Your task to perform on an android device: Check the weather Image 0: 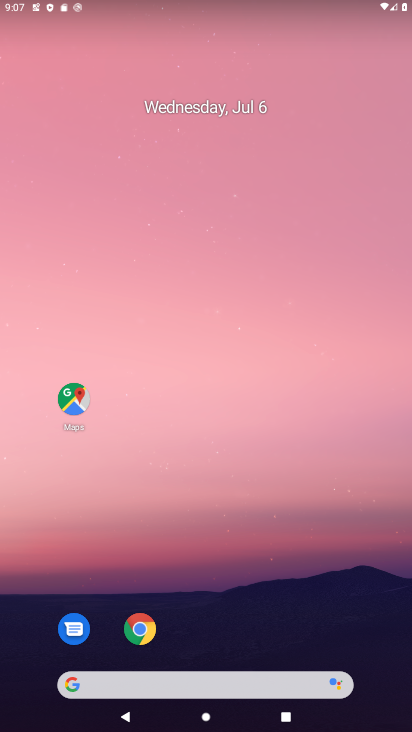
Step 0: drag from (235, 626) to (243, 104)
Your task to perform on an android device: Check the weather Image 1: 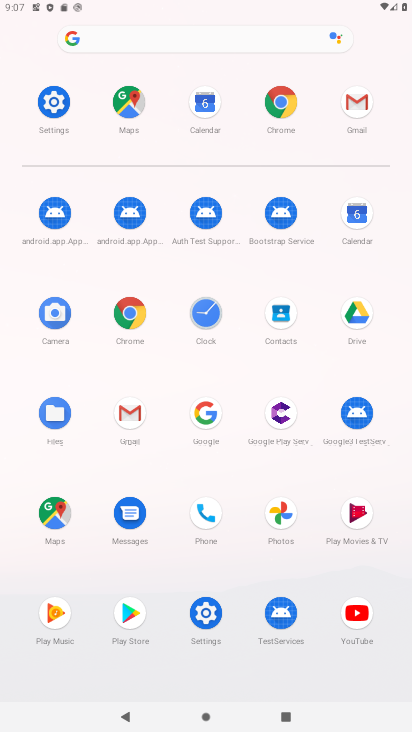
Step 1: click (205, 416)
Your task to perform on an android device: Check the weather Image 2: 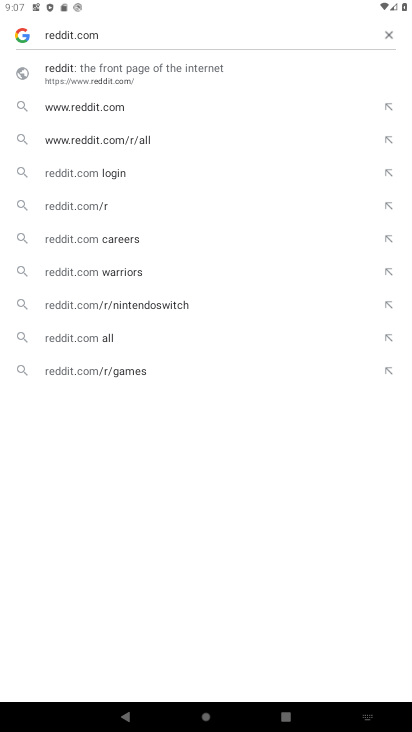
Step 2: click (181, 34)
Your task to perform on an android device: Check the weather Image 3: 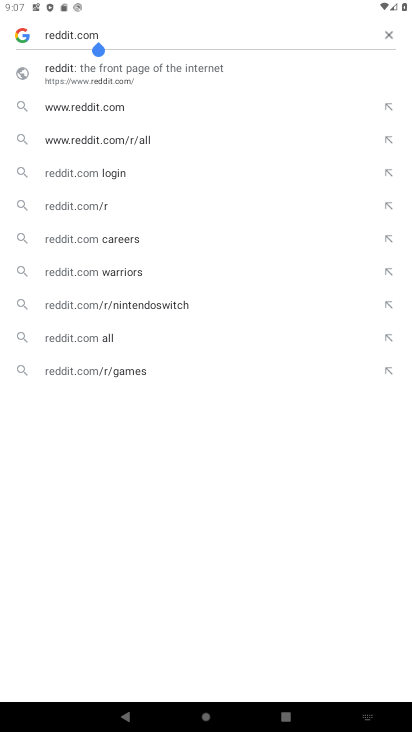
Step 3: click (389, 33)
Your task to perform on an android device: Check the weather Image 4: 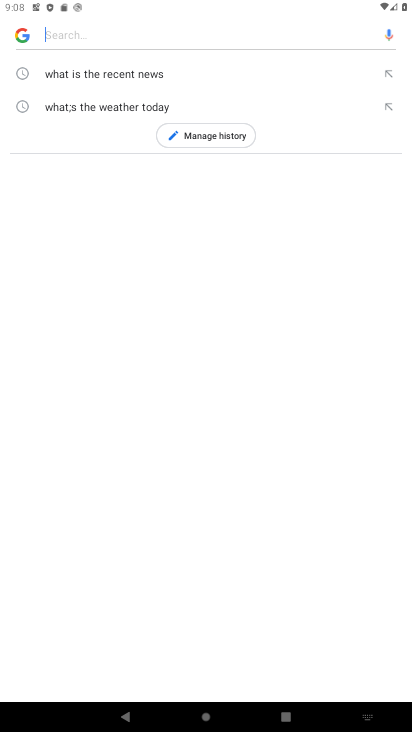
Step 4: type "weather"
Your task to perform on an android device: Check the weather Image 5: 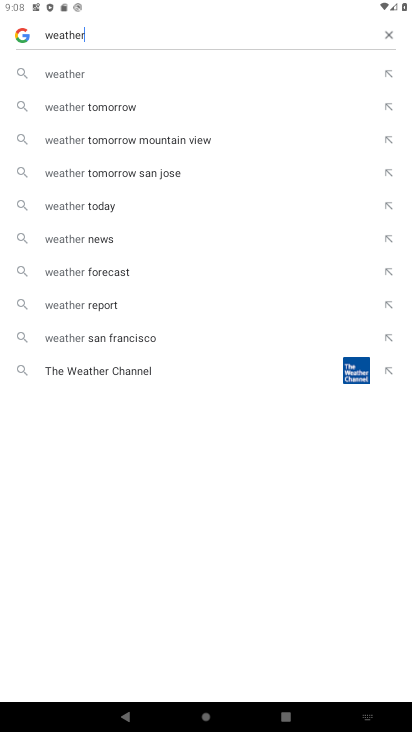
Step 5: click (125, 58)
Your task to perform on an android device: Check the weather Image 6: 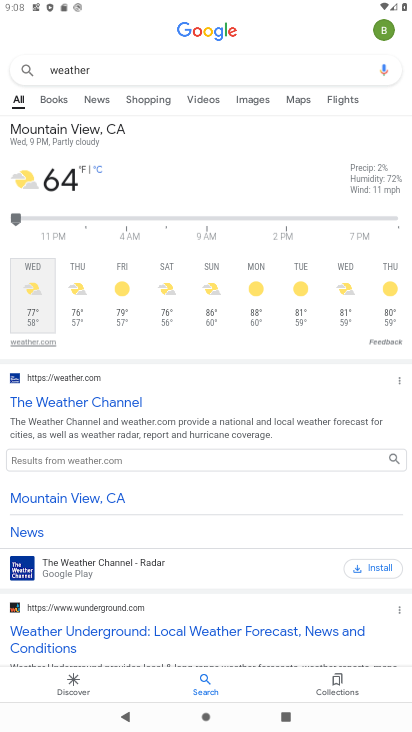
Step 6: task complete